Your task to perform on an android device: allow cookies in the chrome app Image 0: 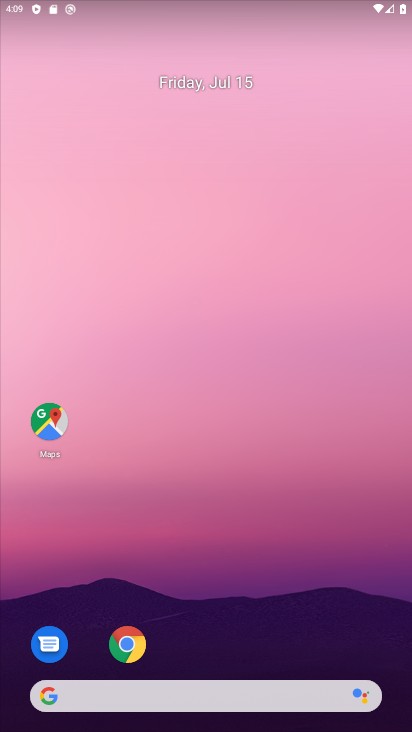
Step 0: click (117, 645)
Your task to perform on an android device: allow cookies in the chrome app Image 1: 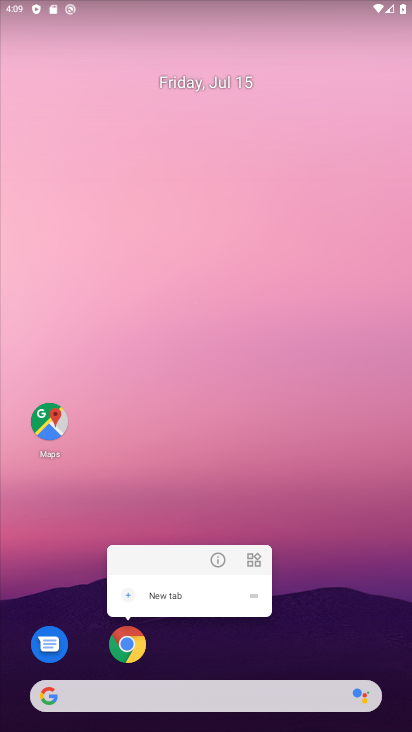
Step 1: click (130, 648)
Your task to perform on an android device: allow cookies in the chrome app Image 2: 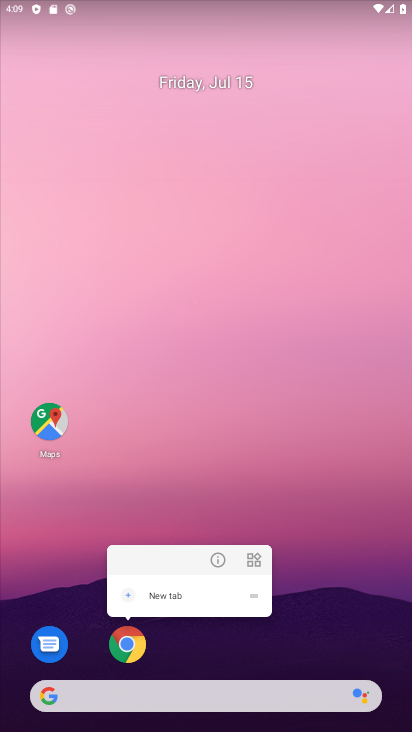
Step 2: click (131, 647)
Your task to perform on an android device: allow cookies in the chrome app Image 3: 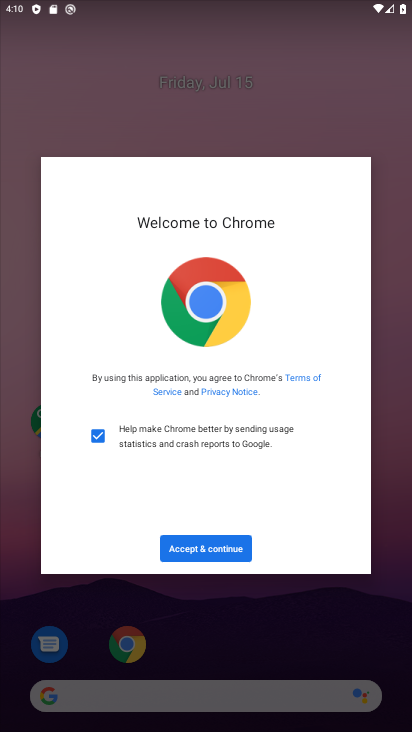
Step 3: click (192, 547)
Your task to perform on an android device: allow cookies in the chrome app Image 4: 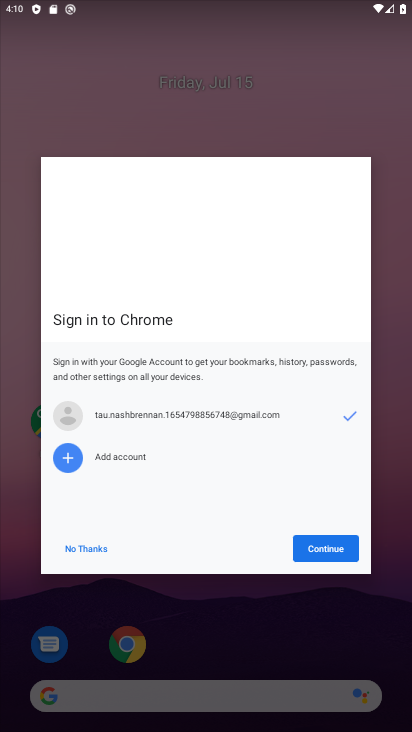
Step 4: click (321, 546)
Your task to perform on an android device: allow cookies in the chrome app Image 5: 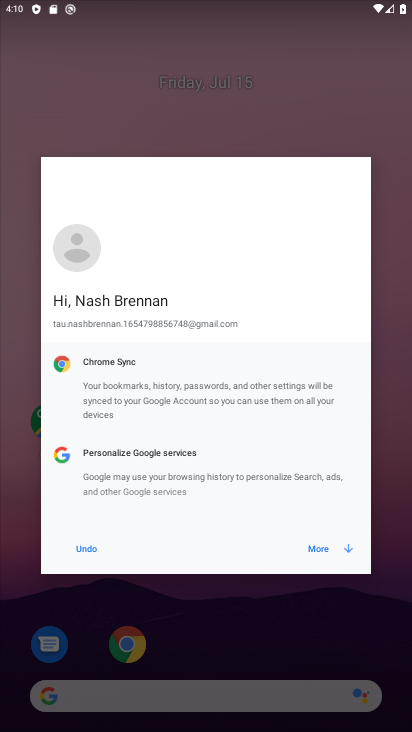
Step 5: click (323, 547)
Your task to perform on an android device: allow cookies in the chrome app Image 6: 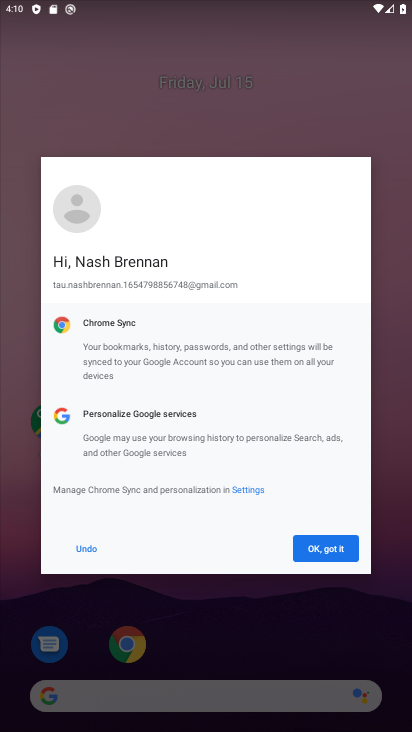
Step 6: click (323, 547)
Your task to perform on an android device: allow cookies in the chrome app Image 7: 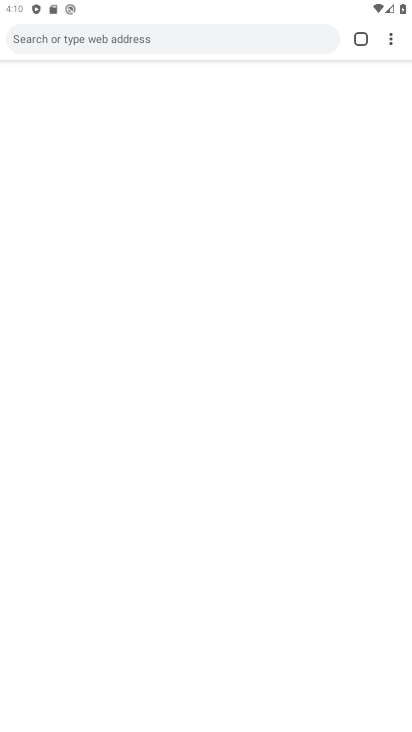
Step 7: click (388, 39)
Your task to perform on an android device: allow cookies in the chrome app Image 8: 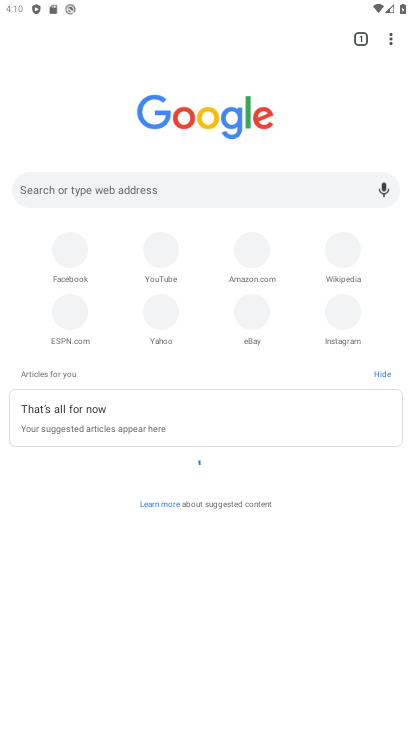
Step 8: click (394, 37)
Your task to perform on an android device: allow cookies in the chrome app Image 9: 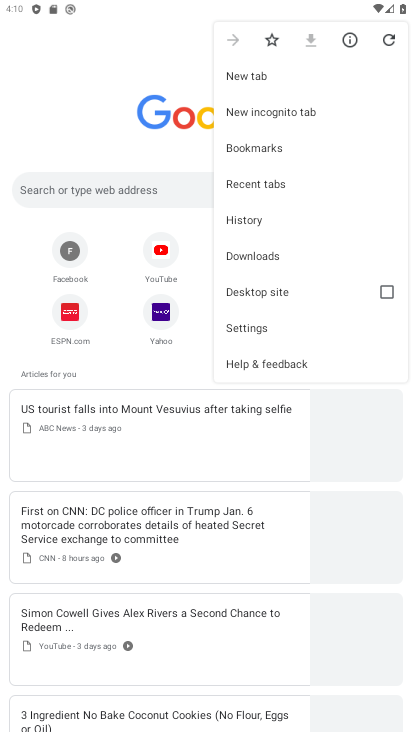
Step 9: click (265, 325)
Your task to perform on an android device: allow cookies in the chrome app Image 10: 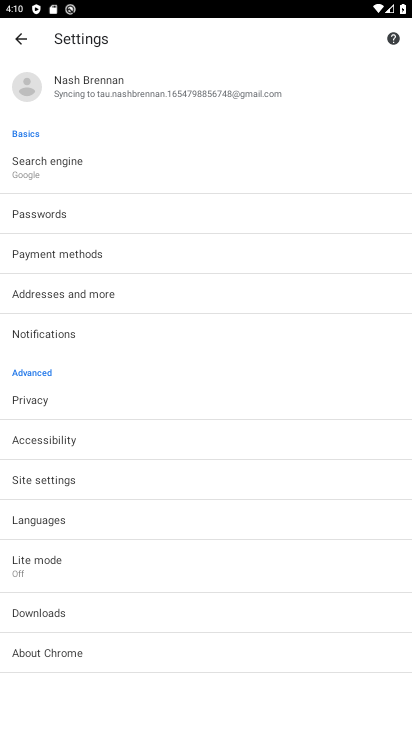
Step 10: click (55, 484)
Your task to perform on an android device: allow cookies in the chrome app Image 11: 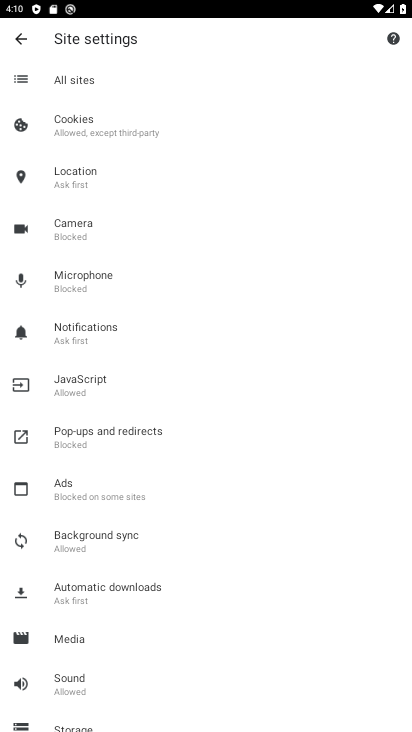
Step 11: click (87, 127)
Your task to perform on an android device: allow cookies in the chrome app Image 12: 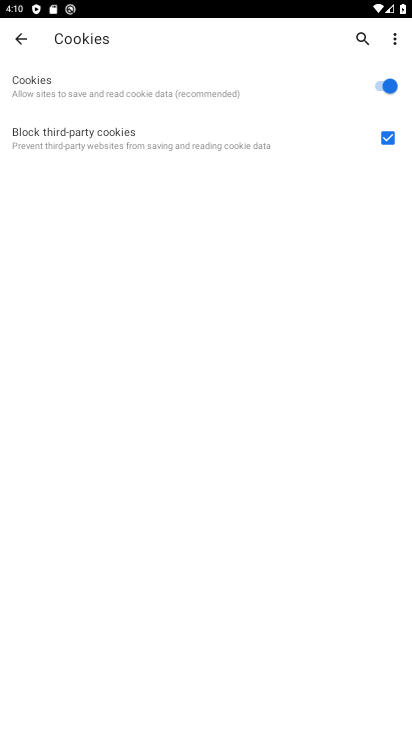
Step 12: task complete